Your task to perform on an android device: Add "dell xps" to the cart on target.com Image 0: 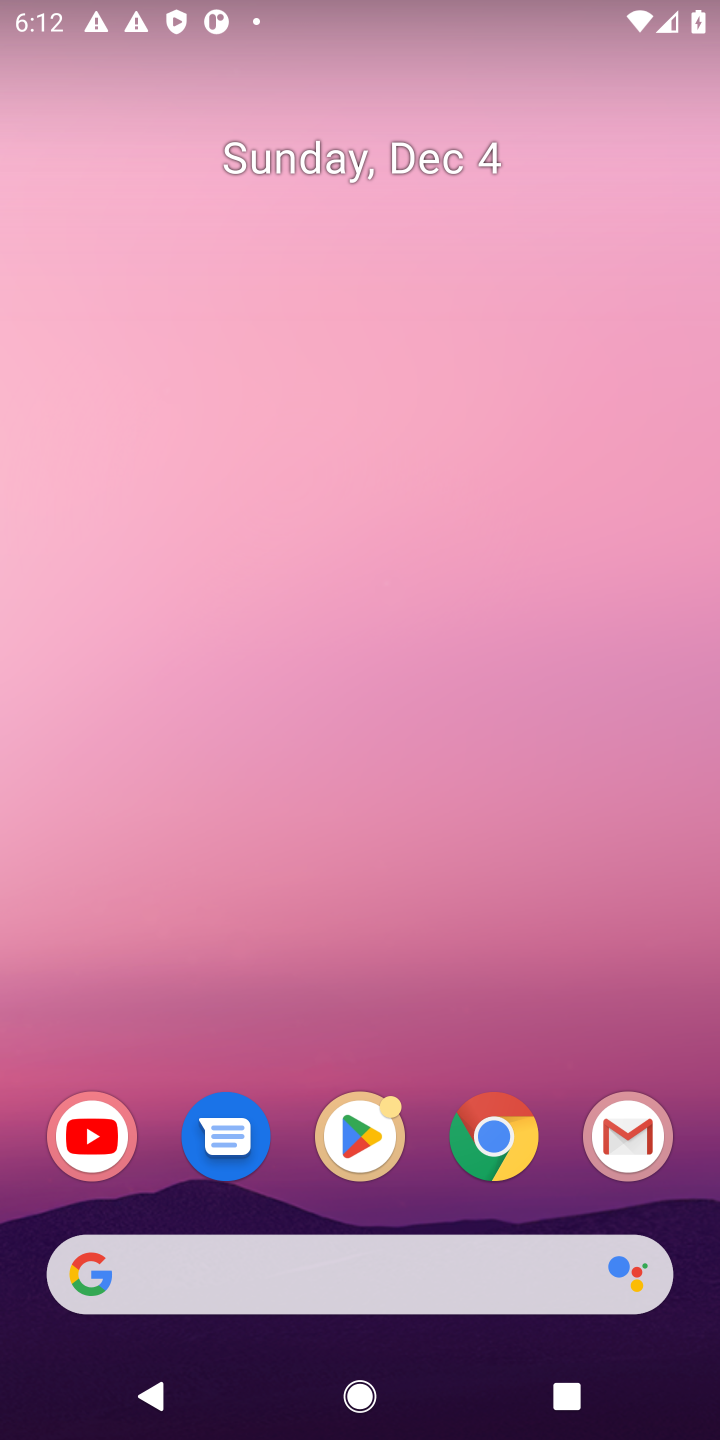
Step 0: click (499, 1142)
Your task to perform on an android device: Add "dell xps" to the cart on target.com Image 1: 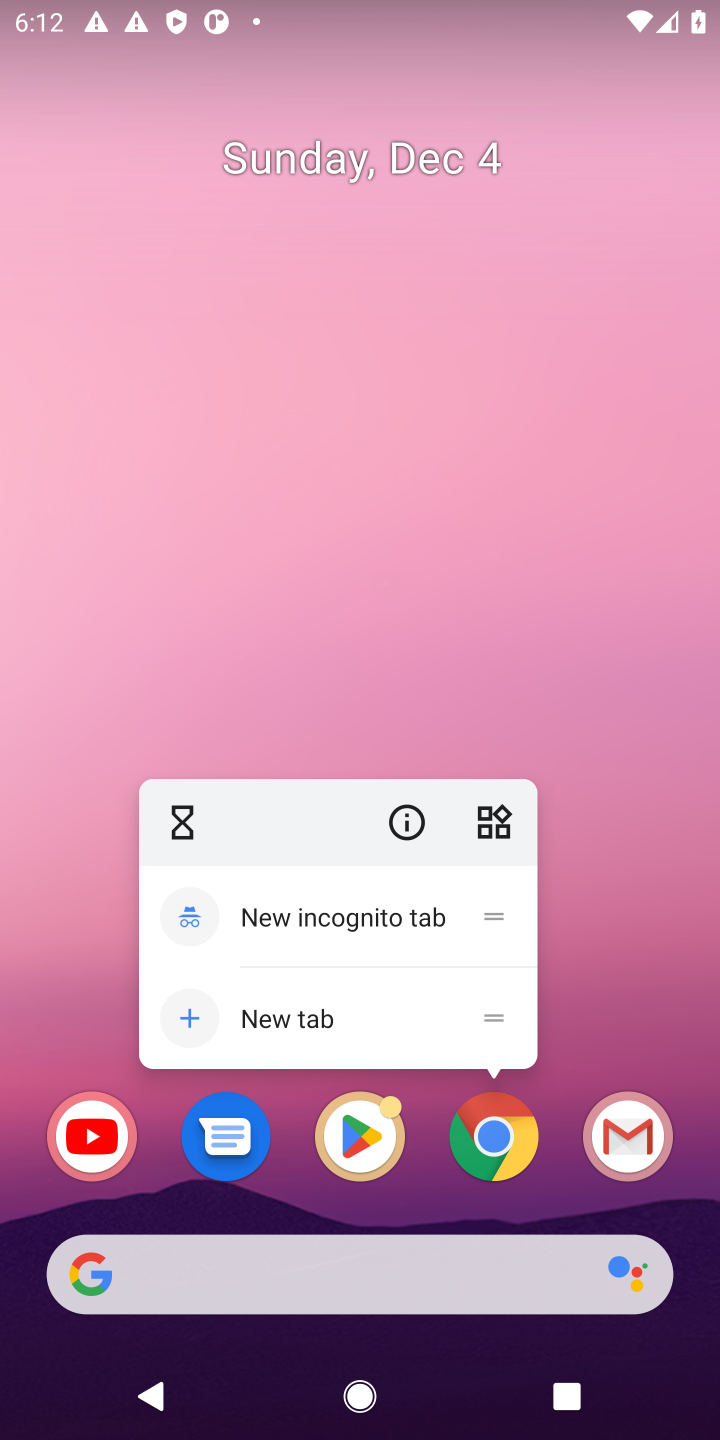
Step 1: click (499, 1142)
Your task to perform on an android device: Add "dell xps" to the cart on target.com Image 2: 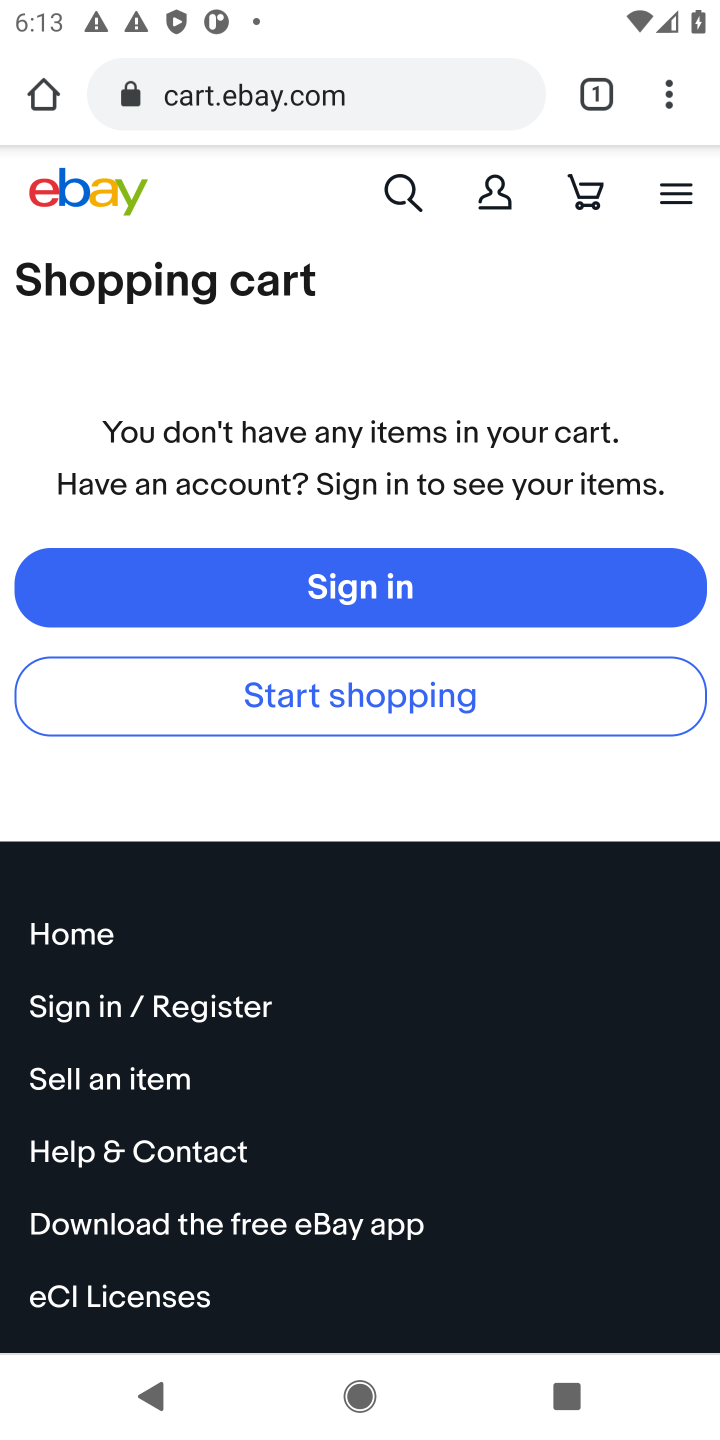
Step 2: click (238, 96)
Your task to perform on an android device: Add "dell xps" to the cart on target.com Image 3: 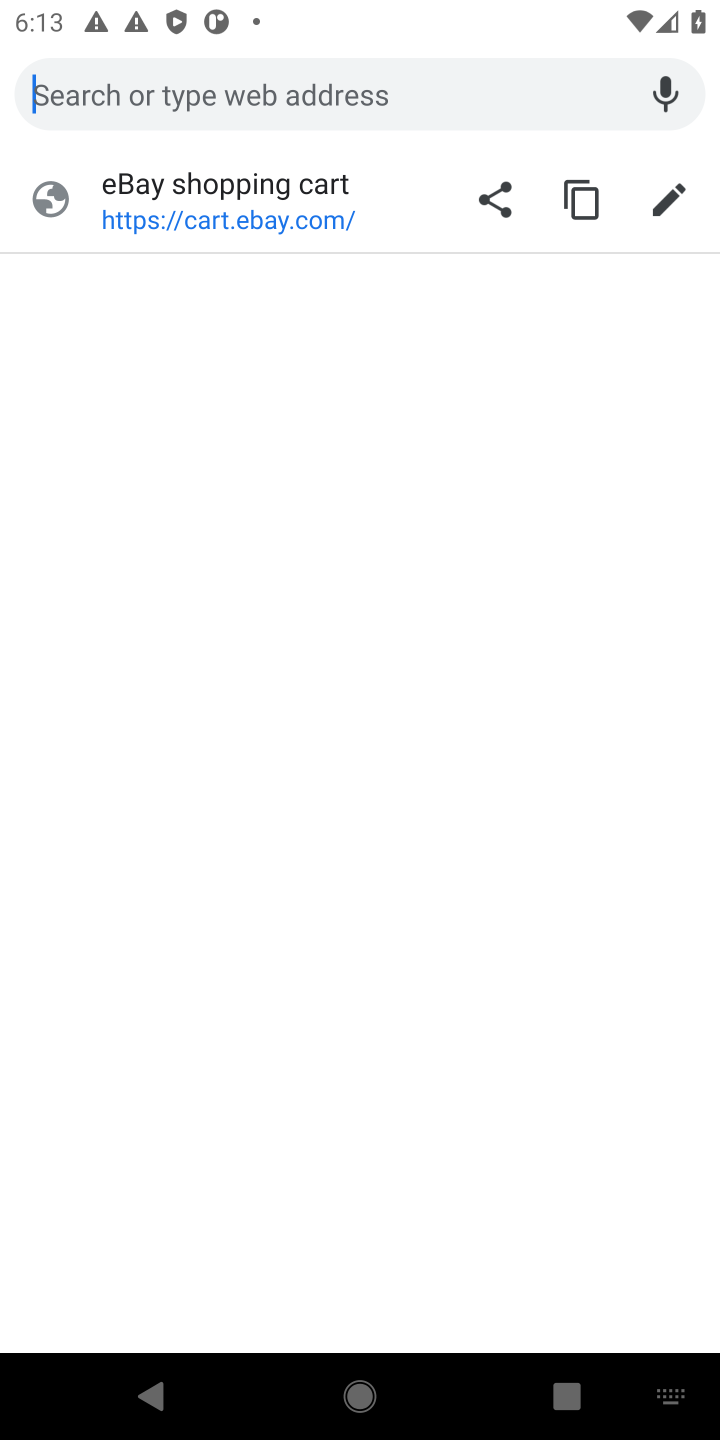
Step 3: type "target.com"
Your task to perform on an android device: Add "dell xps" to the cart on target.com Image 4: 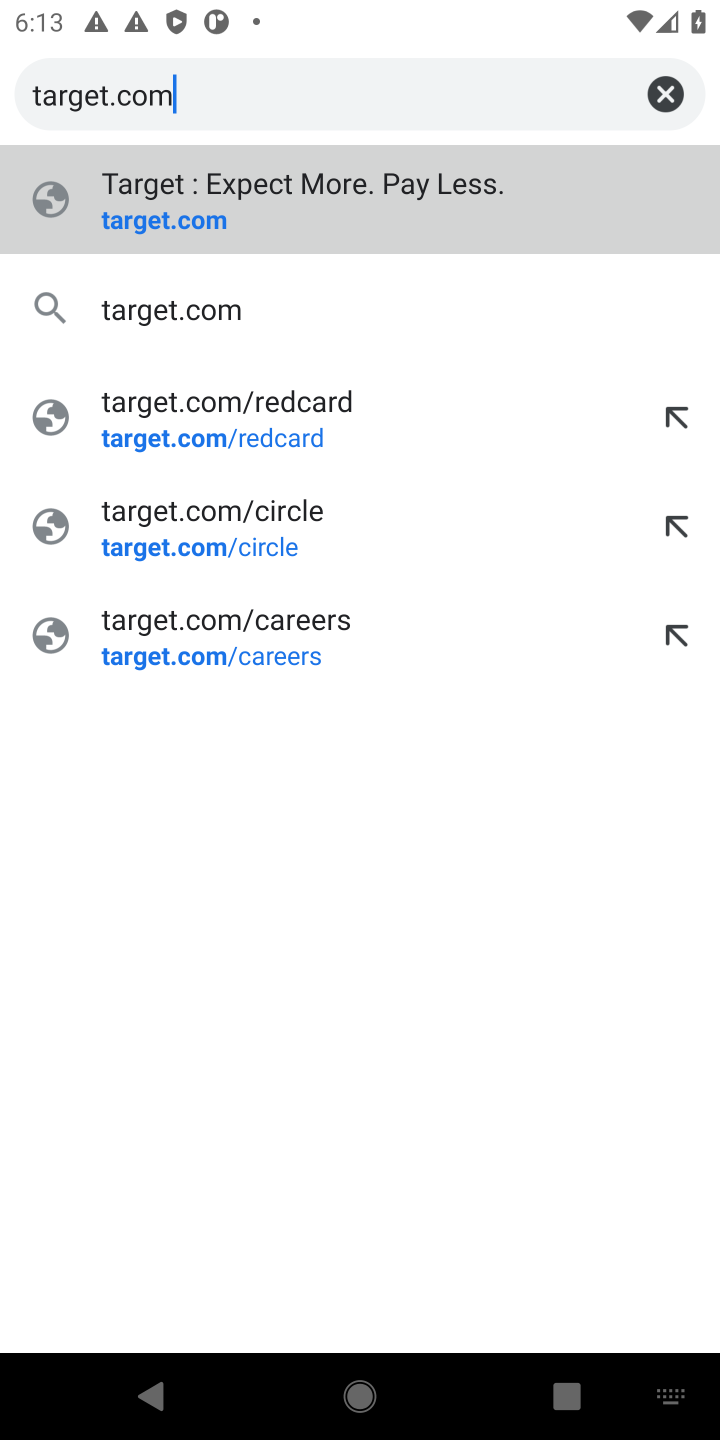
Step 4: click (158, 230)
Your task to perform on an android device: Add "dell xps" to the cart on target.com Image 5: 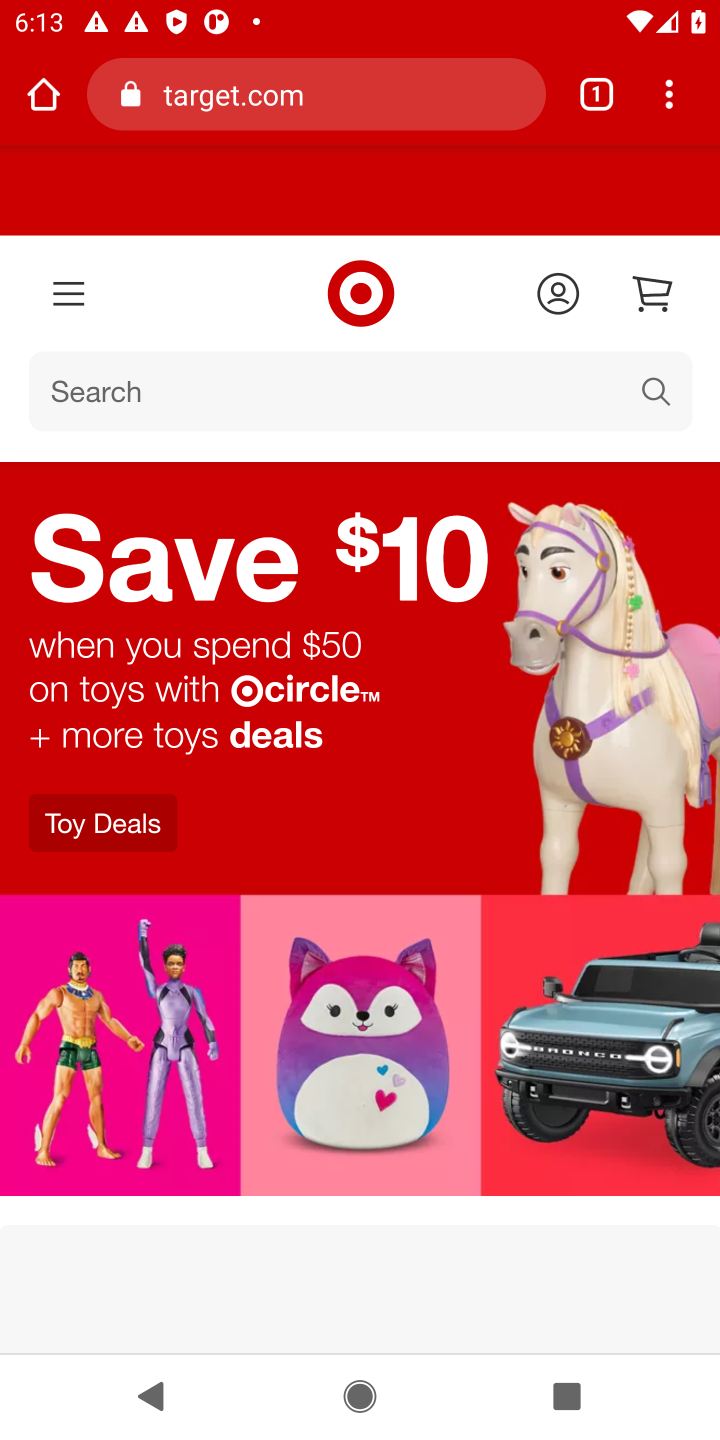
Step 5: click (95, 400)
Your task to perform on an android device: Add "dell xps" to the cart on target.com Image 6: 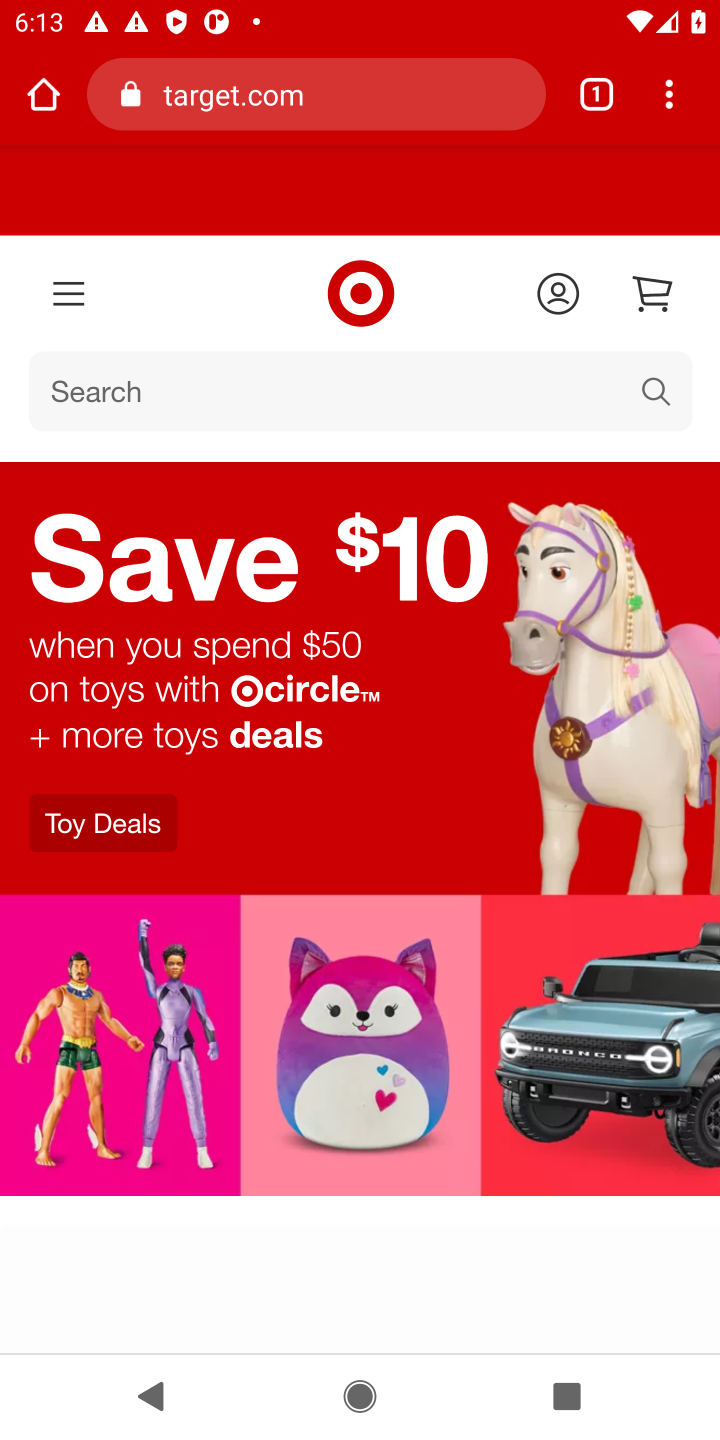
Step 6: click (78, 385)
Your task to perform on an android device: Add "dell xps" to the cart on target.com Image 7: 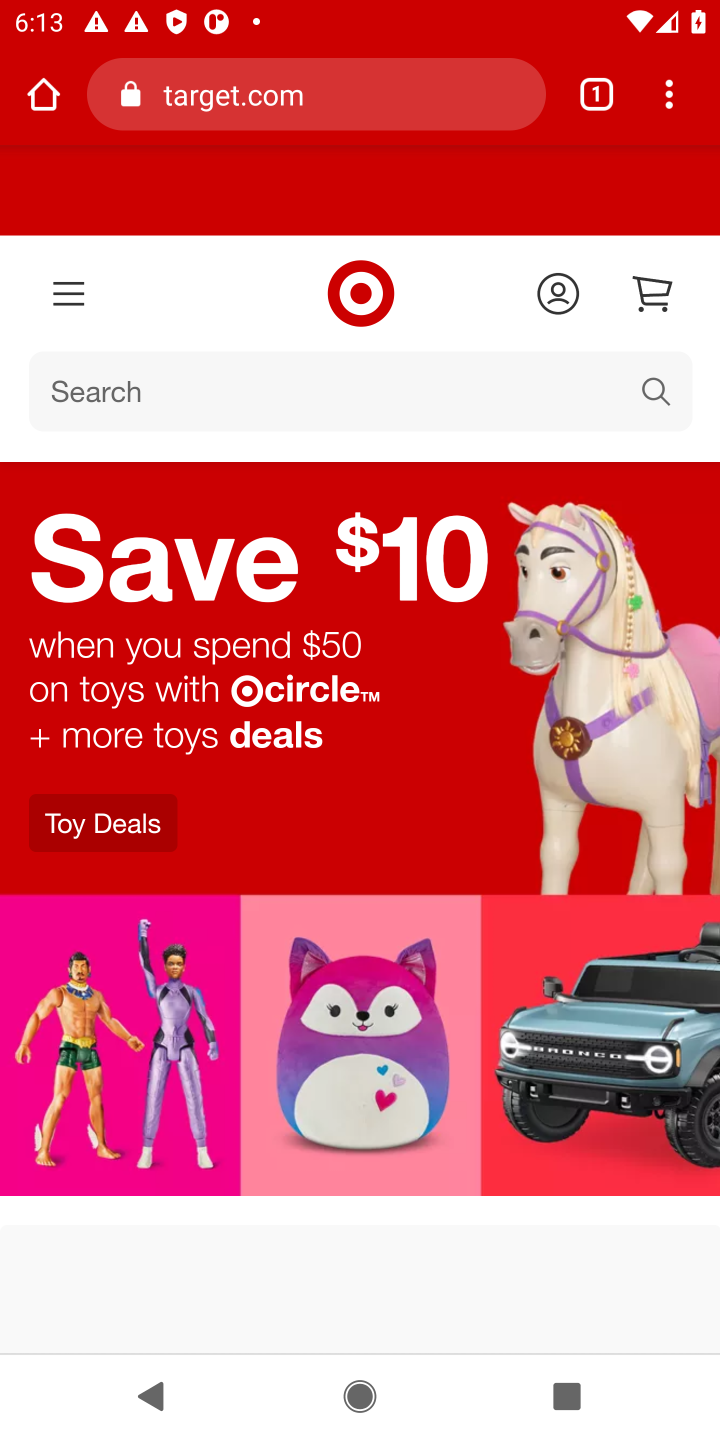
Step 7: click (78, 385)
Your task to perform on an android device: Add "dell xps" to the cart on target.com Image 8: 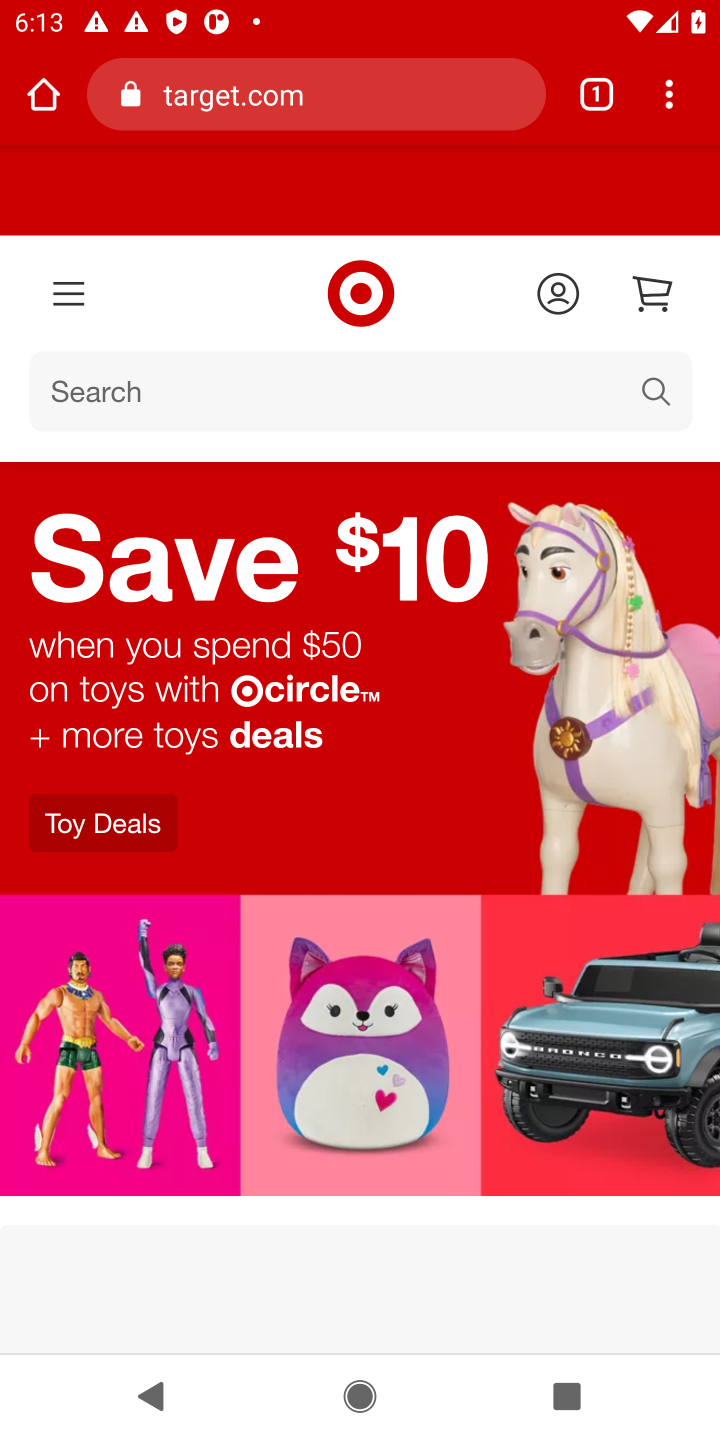
Step 8: click (76, 392)
Your task to perform on an android device: Add "dell xps" to the cart on target.com Image 9: 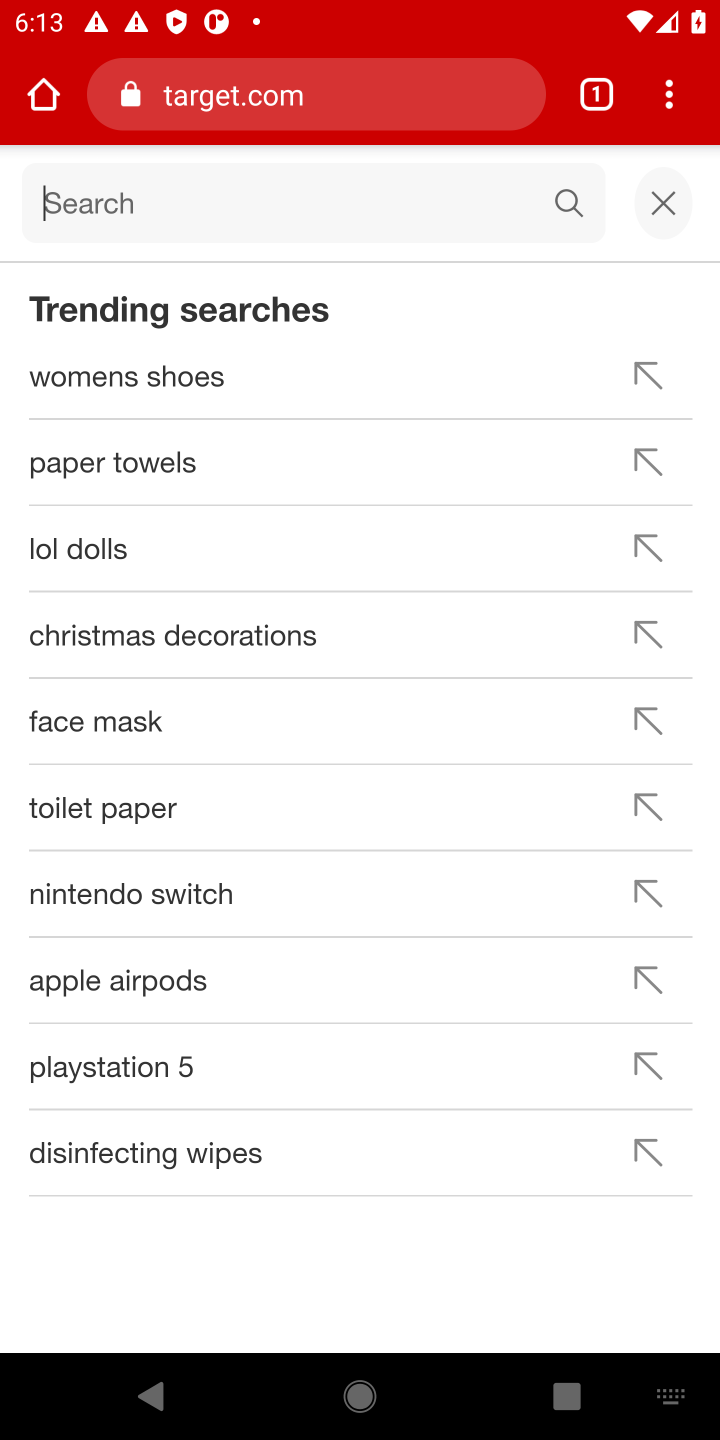
Step 9: type "dell xps "
Your task to perform on an android device: Add "dell xps" to the cart on target.com Image 10: 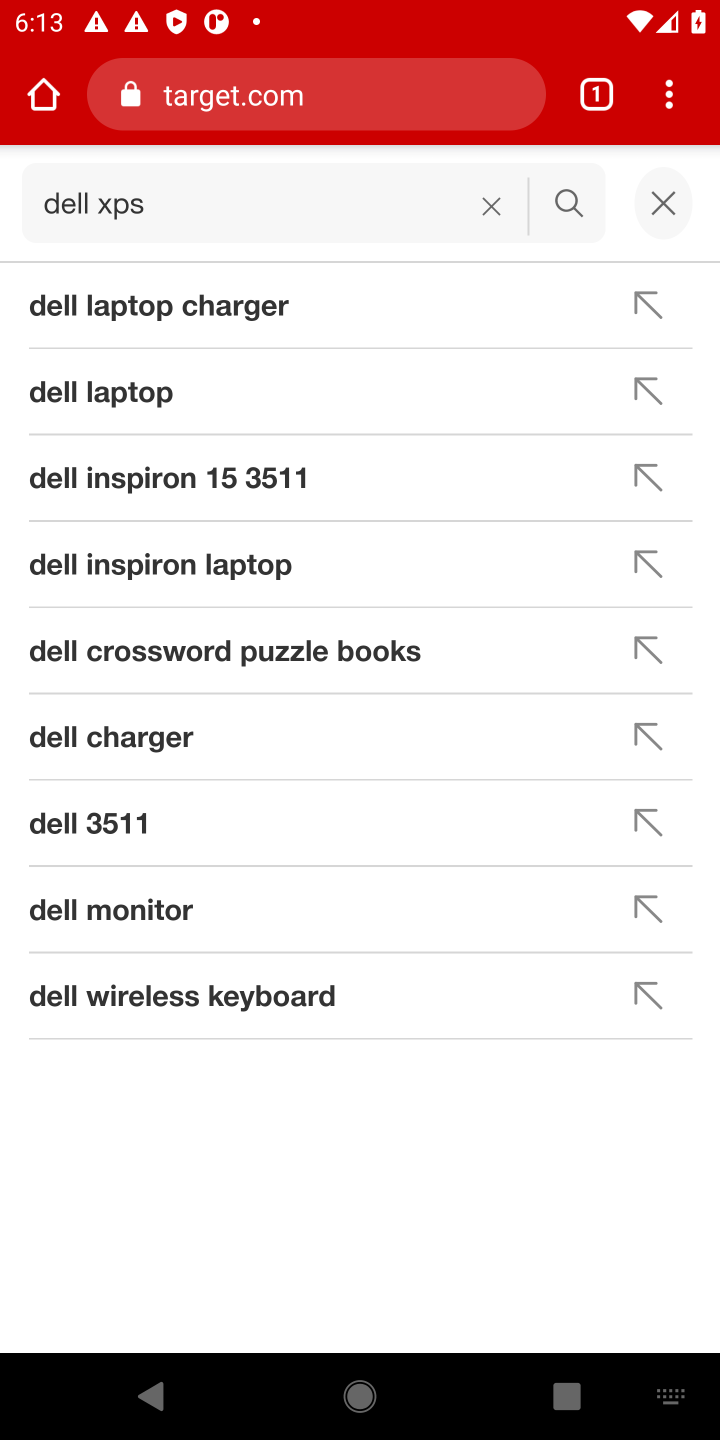
Step 10: click (571, 218)
Your task to perform on an android device: Add "dell xps" to the cart on target.com Image 11: 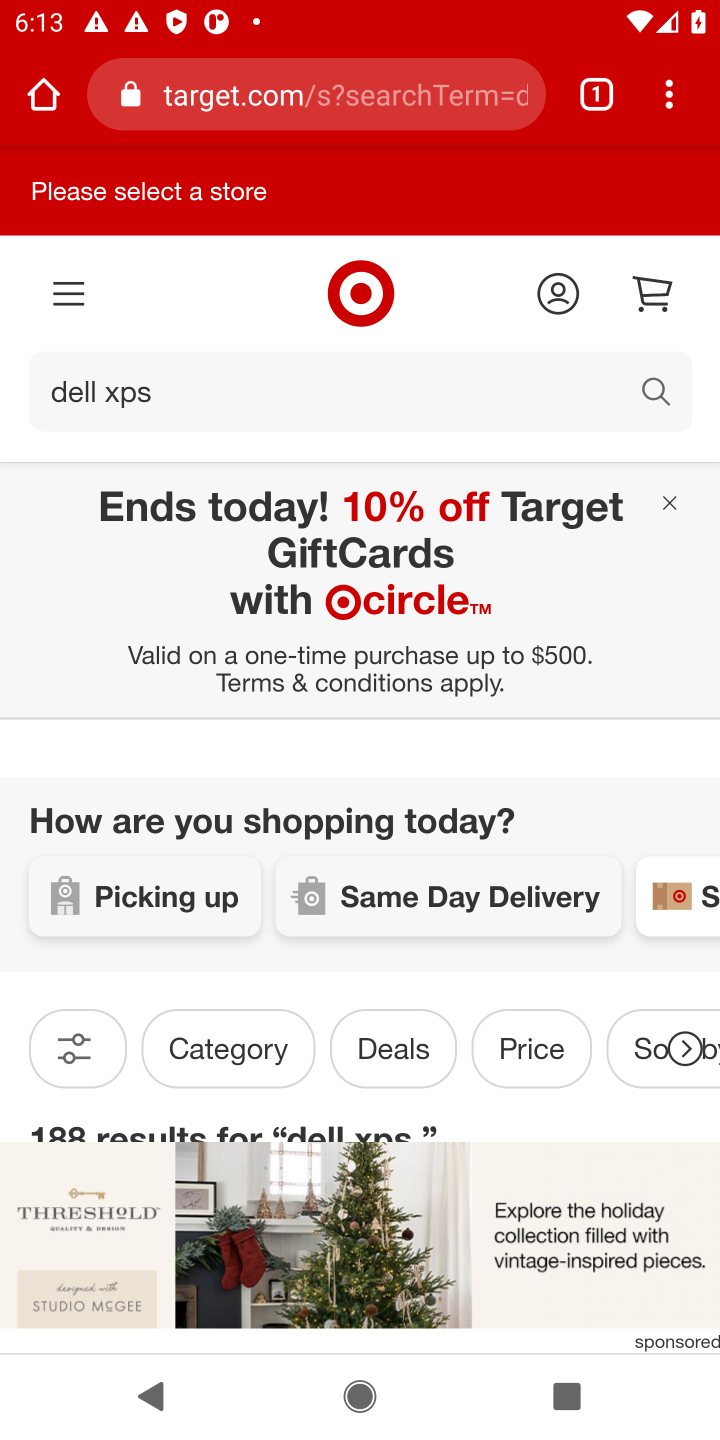
Step 11: task complete